Your task to perform on an android device: Show the shopping cart on target.com. Add razer huntsman to the cart on target.com, then select checkout. Image 0: 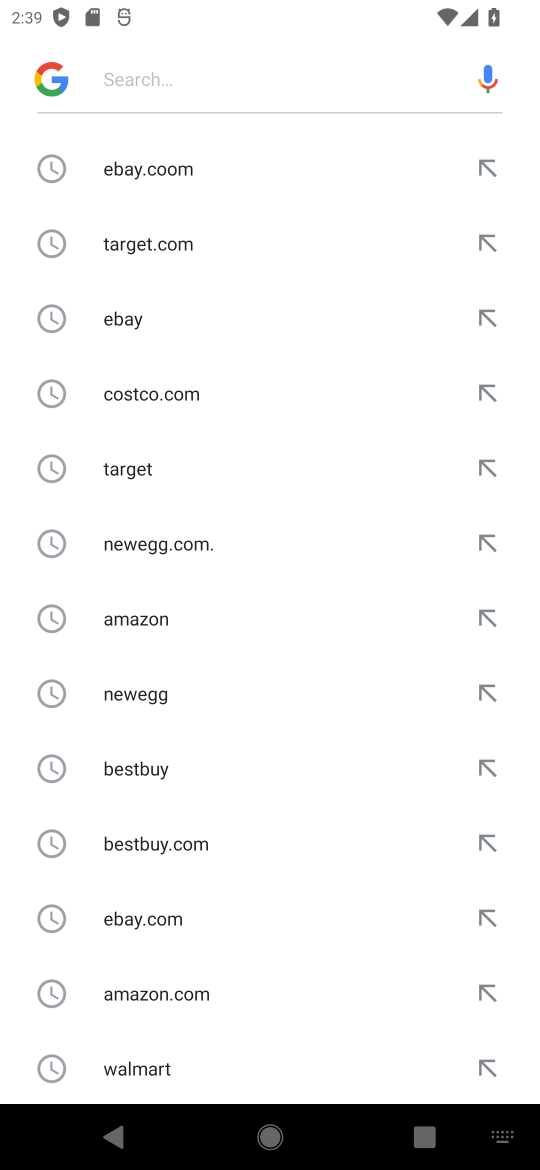
Step 0: type "target.com"
Your task to perform on an android device: Show the shopping cart on target.com. Add razer huntsman to the cart on target.com, then select checkout. Image 1: 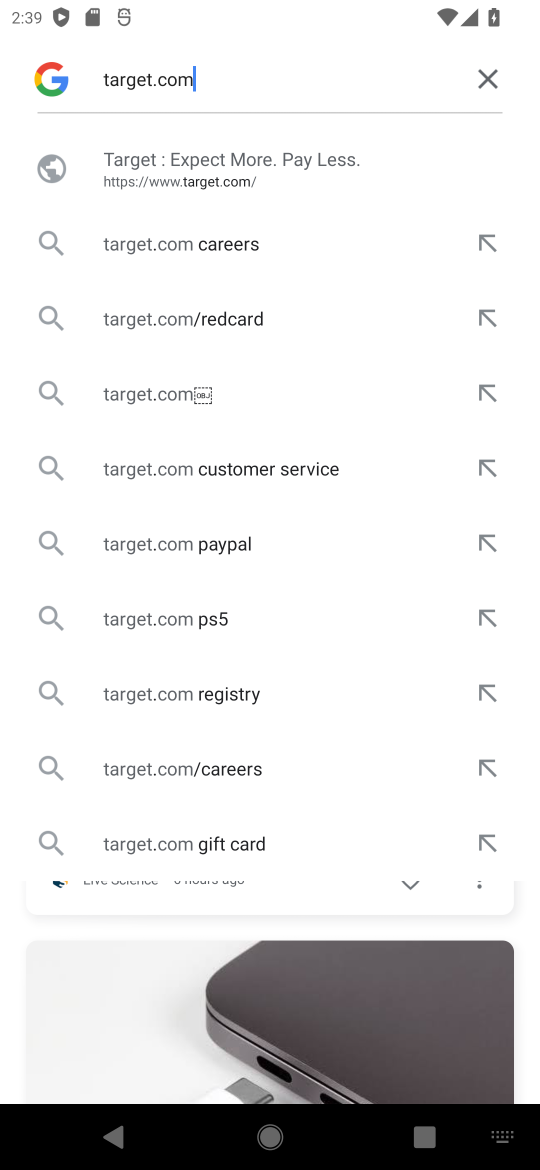
Step 1: press enter
Your task to perform on an android device: Show the shopping cart on target.com. Add razer huntsman to the cart on target.com, then select checkout. Image 2: 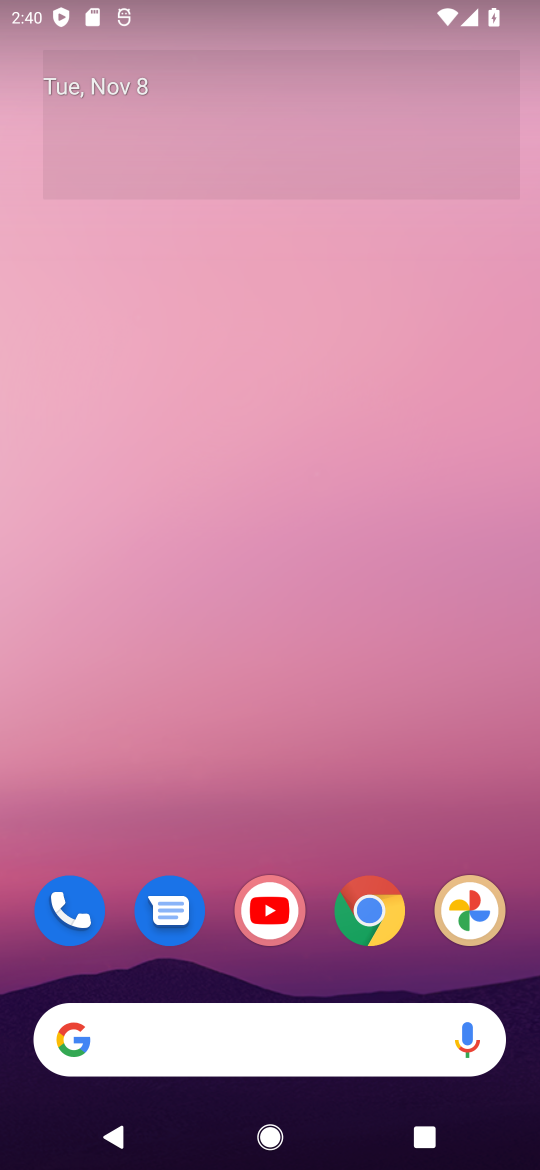
Step 2: drag from (315, 953) to (495, 270)
Your task to perform on an android device: Show the shopping cart on target.com. Add razer huntsman to the cart on target.com, then select checkout. Image 3: 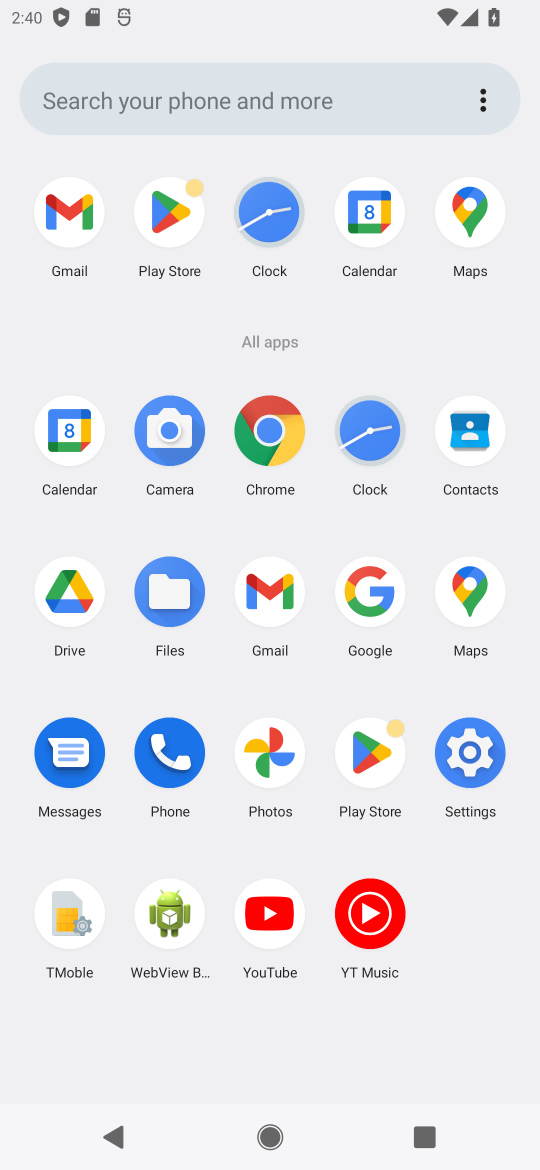
Step 3: click (259, 439)
Your task to perform on an android device: Show the shopping cart on target.com. Add razer huntsman to the cart on target.com, then select checkout. Image 4: 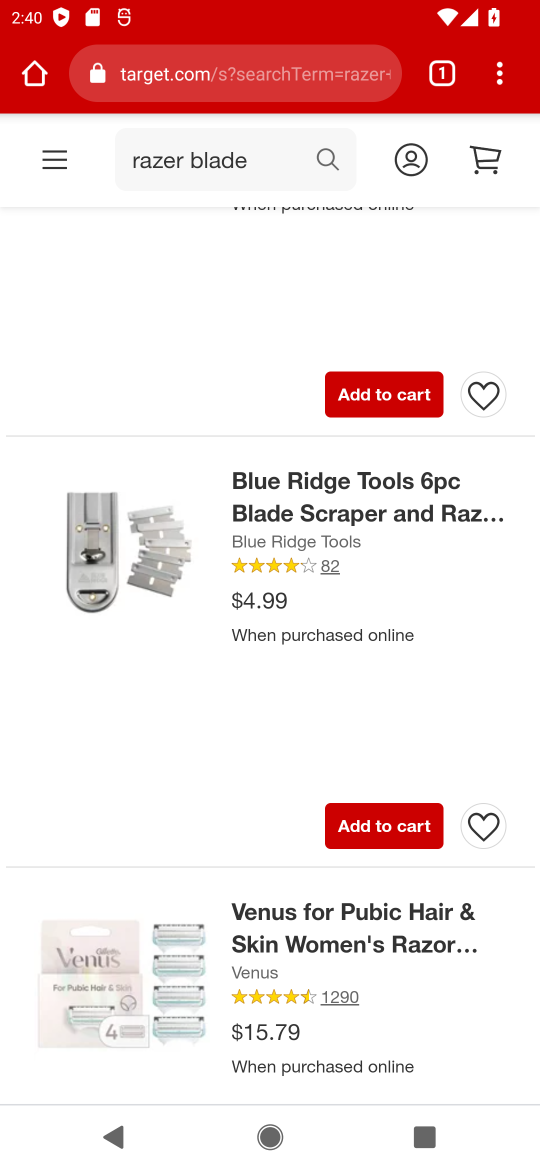
Step 4: click (250, 163)
Your task to perform on an android device: Show the shopping cart on target.com. Add razer huntsman to the cart on target.com, then select checkout. Image 5: 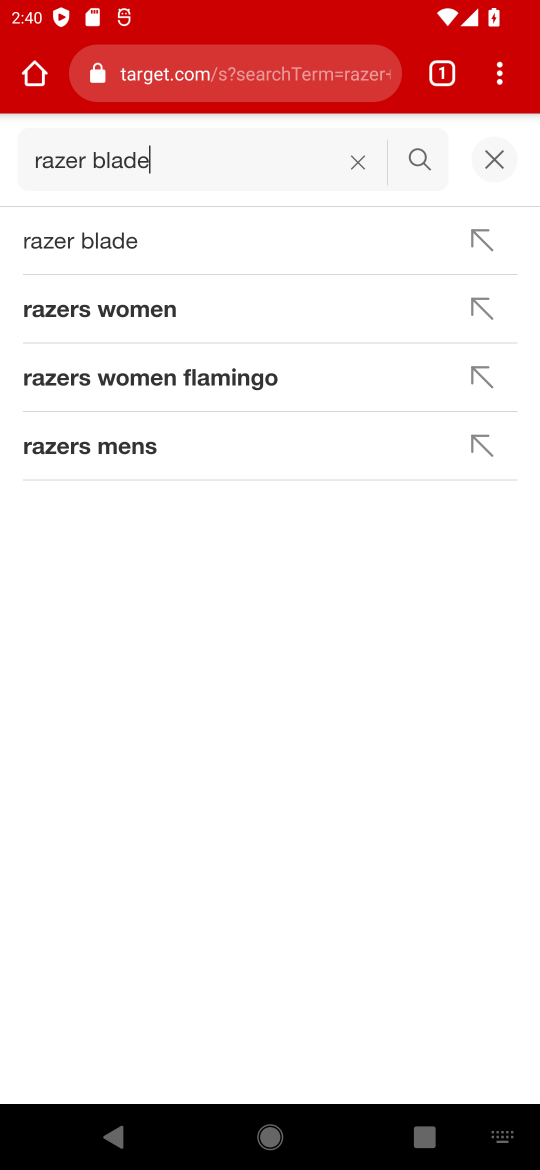
Step 5: click (349, 162)
Your task to perform on an android device: Show the shopping cart on target.com. Add razer huntsman to the cart on target.com, then select checkout. Image 6: 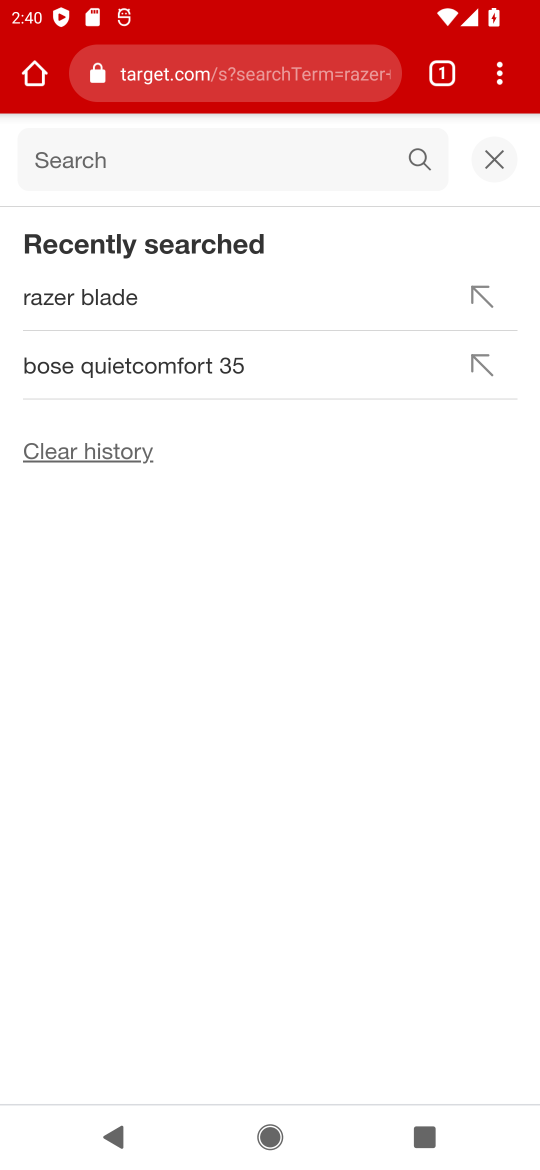
Step 6: click (82, 152)
Your task to perform on an android device: Show the shopping cart on target.com. Add razer huntsman to the cart on target.com, then select checkout. Image 7: 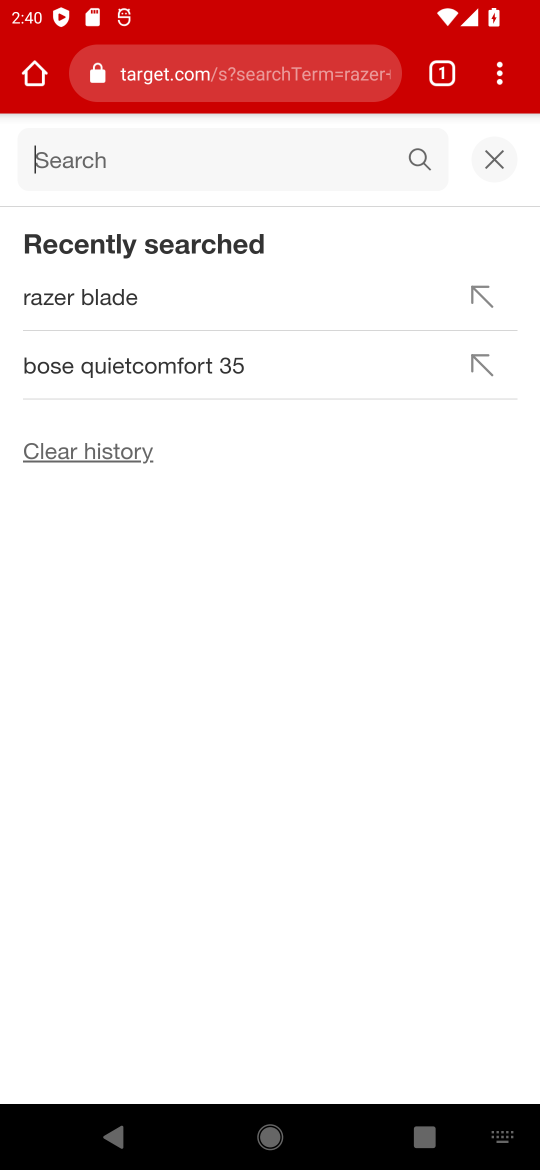
Step 7: type "razer huntsman"
Your task to perform on an android device: Show the shopping cart on target.com. Add razer huntsman to the cart on target.com, then select checkout. Image 8: 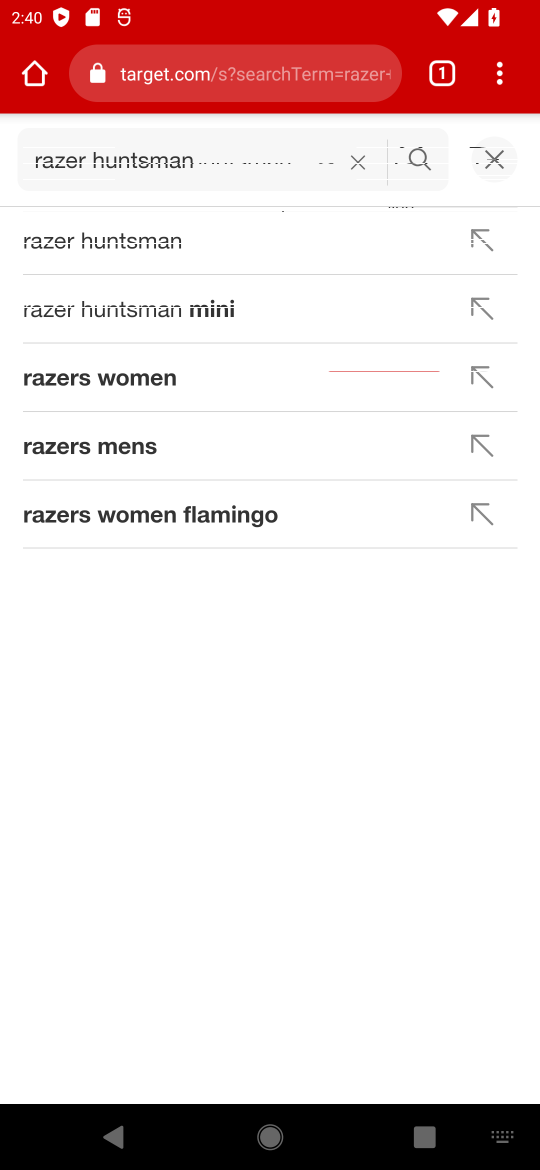
Step 8: press enter
Your task to perform on an android device: Show the shopping cart on target.com. Add razer huntsman to the cart on target.com, then select checkout. Image 9: 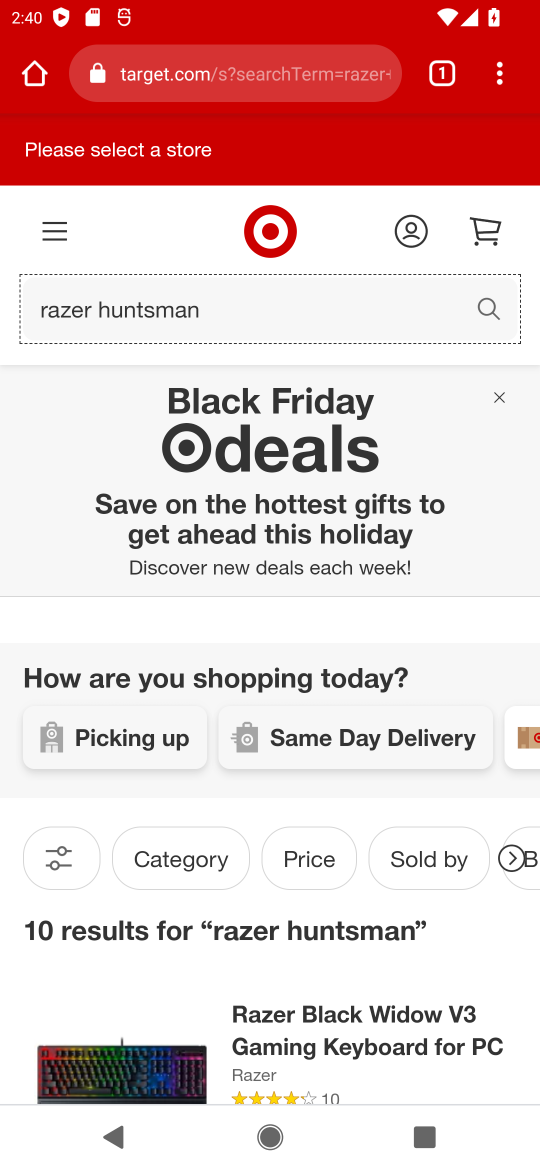
Step 9: task complete